Your task to perform on an android device: change text size in settings app Image 0: 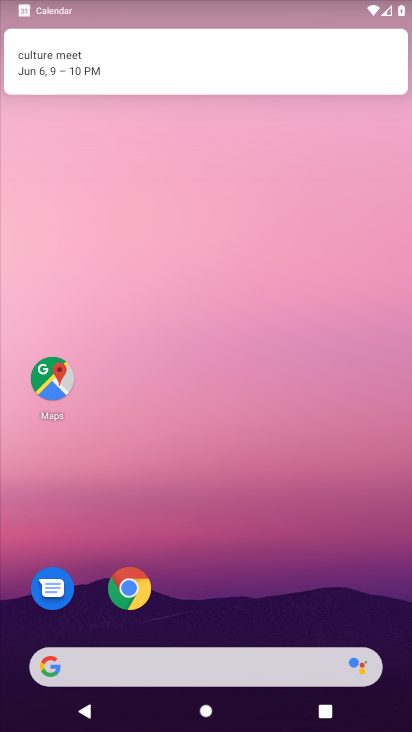
Step 0: drag from (210, 652) to (134, 4)
Your task to perform on an android device: change text size in settings app Image 1: 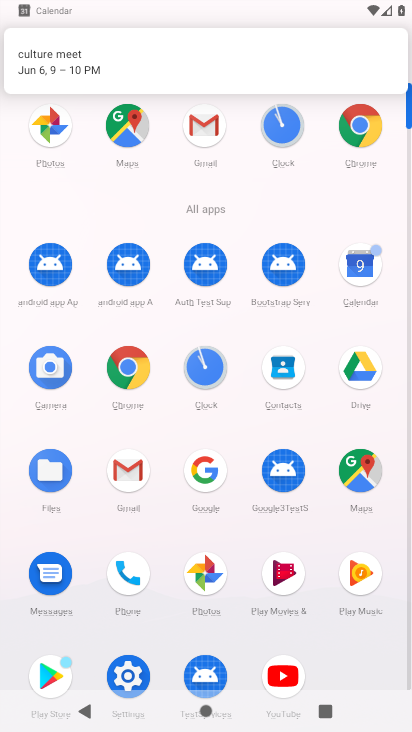
Step 1: click (127, 666)
Your task to perform on an android device: change text size in settings app Image 2: 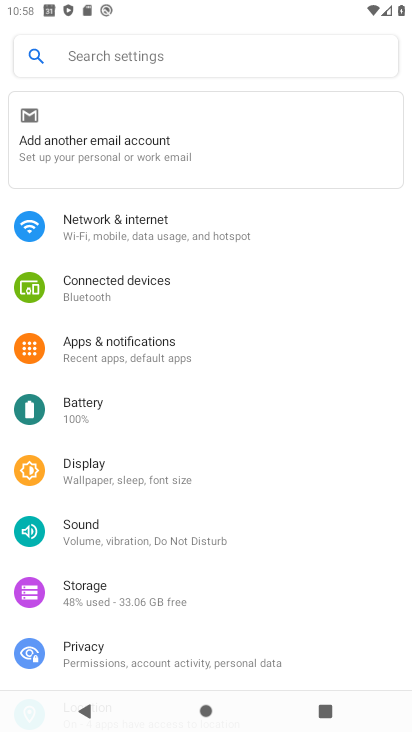
Step 2: click (132, 479)
Your task to perform on an android device: change text size in settings app Image 3: 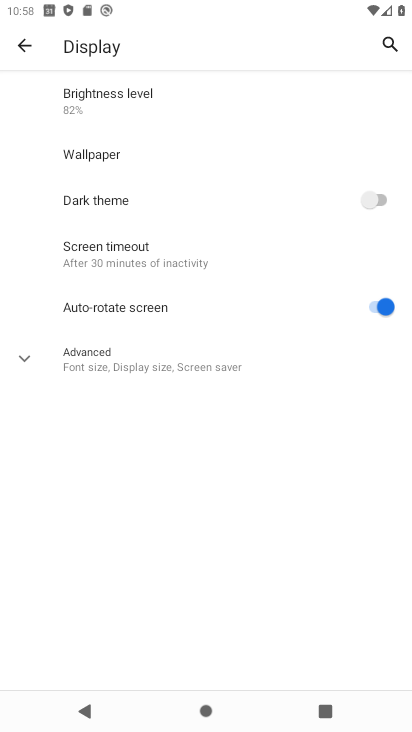
Step 3: click (130, 354)
Your task to perform on an android device: change text size in settings app Image 4: 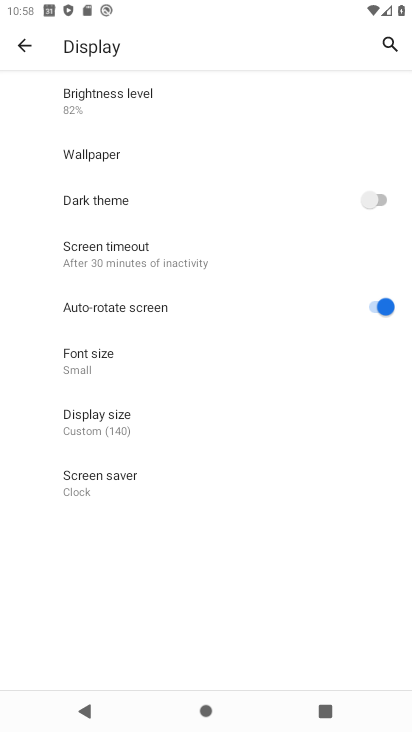
Step 4: click (112, 373)
Your task to perform on an android device: change text size in settings app Image 5: 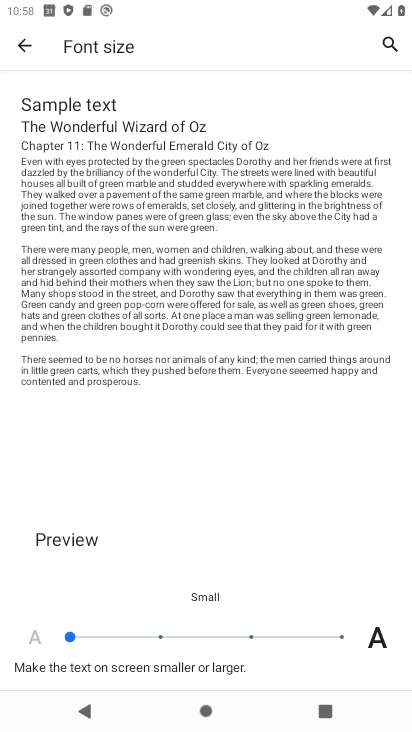
Step 5: click (162, 632)
Your task to perform on an android device: change text size in settings app Image 6: 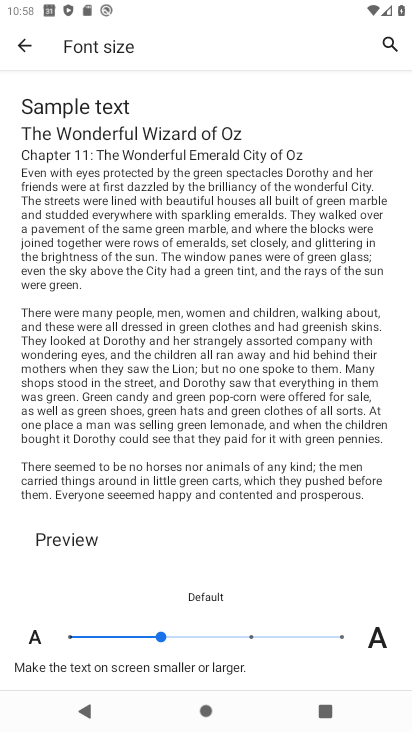
Step 6: task complete